Your task to perform on an android device: What's the weather? Image 0: 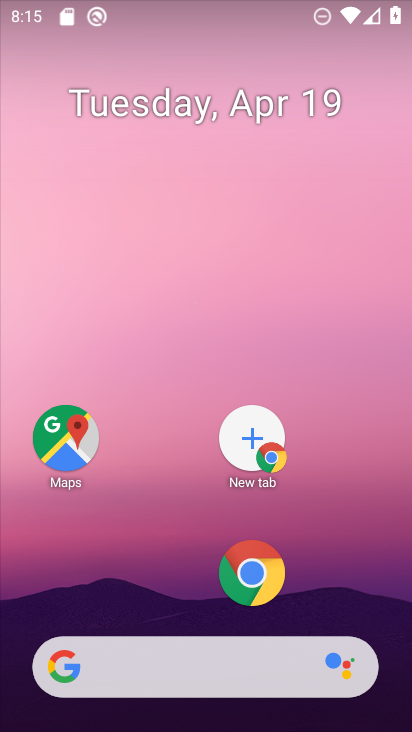
Step 0: click (158, 659)
Your task to perform on an android device: What's the weather? Image 1: 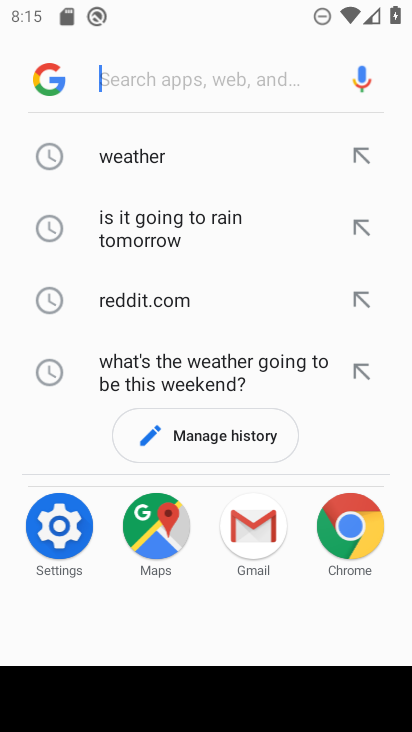
Step 1: click (264, 147)
Your task to perform on an android device: What's the weather? Image 2: 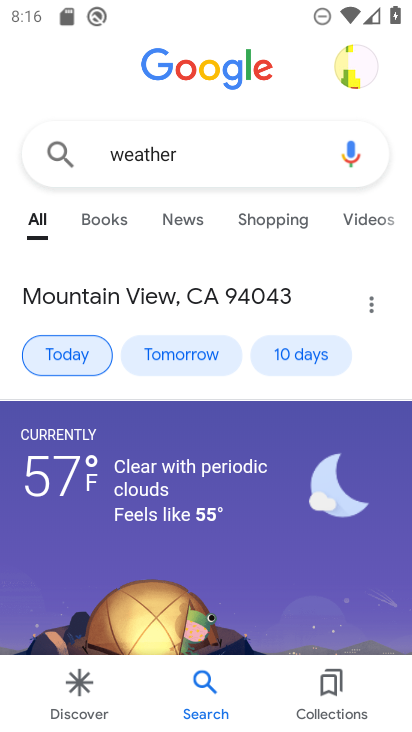
Step 2: task complete